Your task to perform on an android device: toggle notifications settings in the gmail app Image 0: 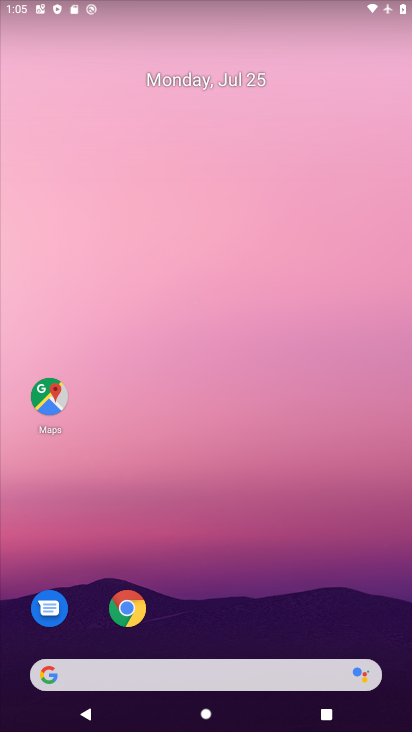
Step 0: drag from (218, 638) to (342, 225)
Your task to perform on an android device: toggle notifications settings in the gmail app Image 1: 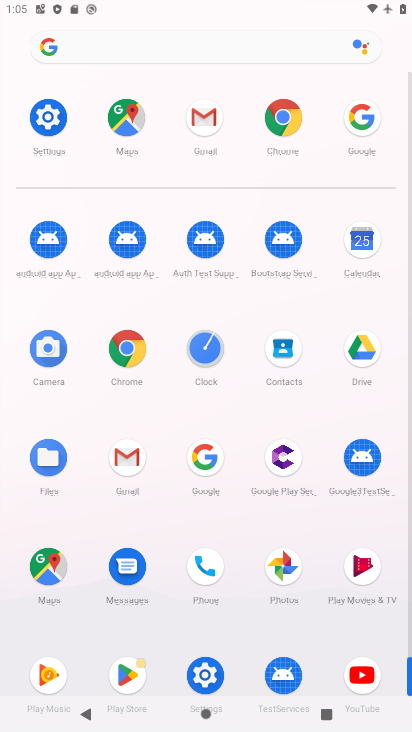
Step 1: click (132, 474)
Your task to perform on an android device: toggle notifications settings in the gmail app Image 2: 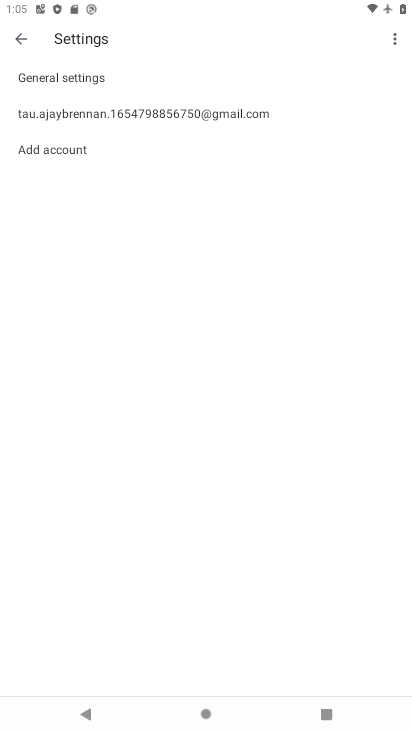
Step 2: click (87, 82)
Your task to perform on an android device: toggle notifications settings in the gmail app Image 3: 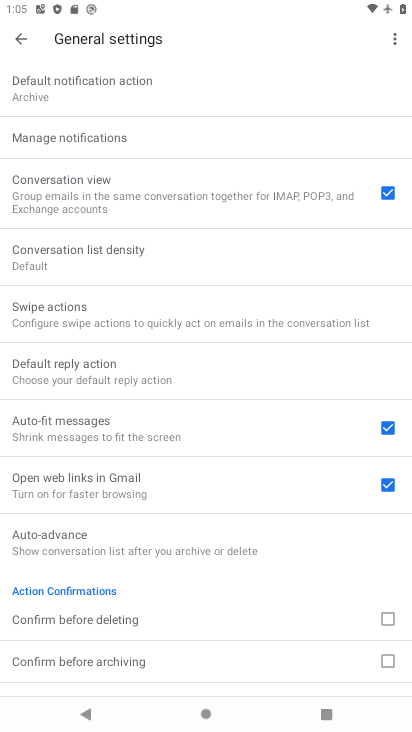
Step 3: click (89, 144)
Your task to perform on an android device: toggle notifications settings in the gmail app Image 4: 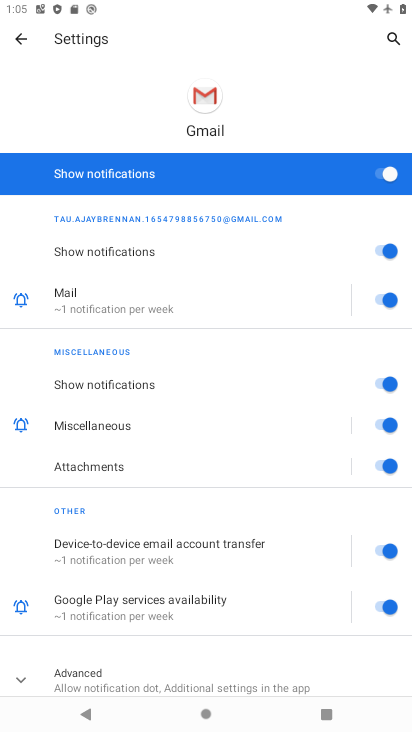
Step 4: drag from (185, 560) to (240, 303)
Your task to perform on an android device: toggle notifications settings in the gmail app Image 5: 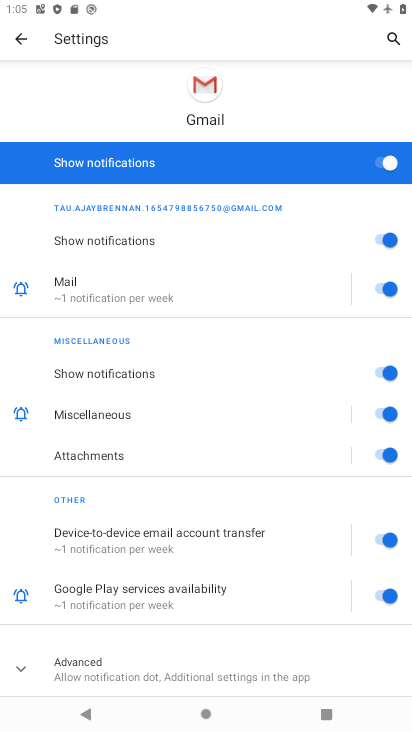
Step 5: click (383, 166)
Your task to perform on an android device: toggle notifications settings in the gmail app Image 6: 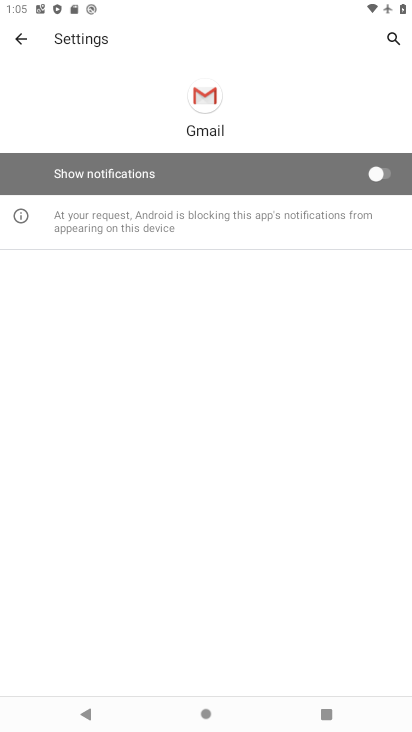
Step 6: task complete